Your task to perform on an android device: turn off data saver in the chrome app Image 0: 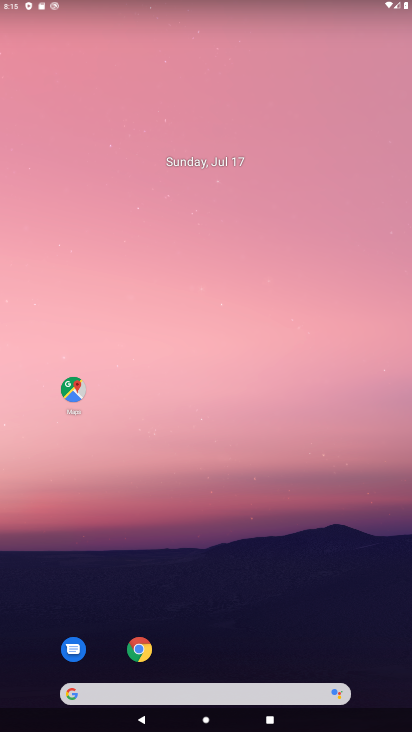
Step 0: click (141, 646)
Your task to perform on an android device: turn off data saver in the chrome app Image 1: 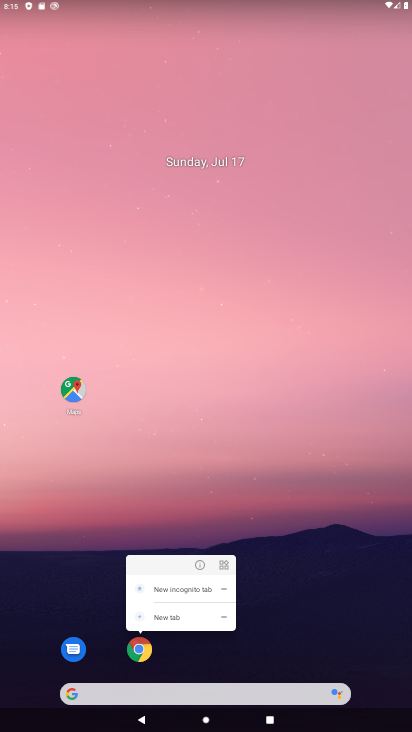
Step 1: click (137, 645)
Your task to perform on an android device: turn off data saver in the chrome app Image 2: 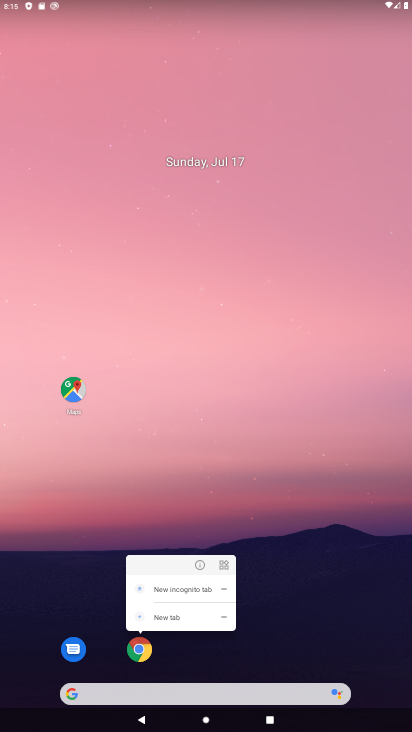
Step 2: click (142, 647)
Your task to perform on an android device: turn off data saver in the chrome app Image 3: 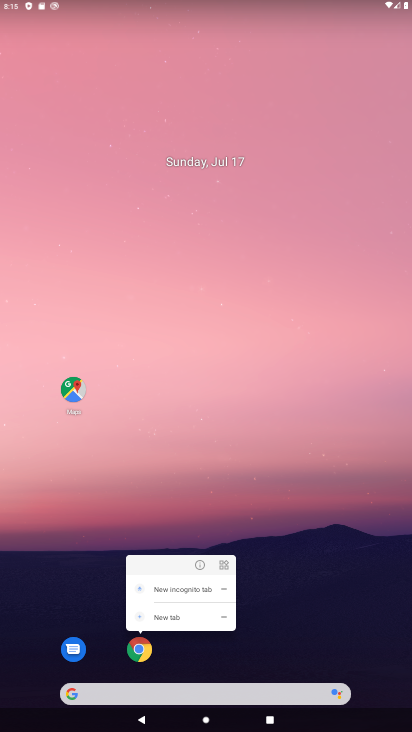
Step 3: click (143, 648)
Your task to perform on an android device: turn off data saver in the chrome app Image 4: 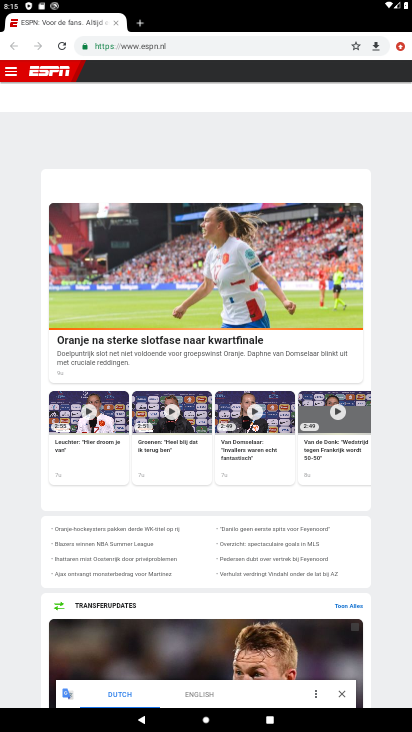
Step 4: click (400, 47)
Your task to perform on an android device: turn off data saver in the chrome app Image 5: 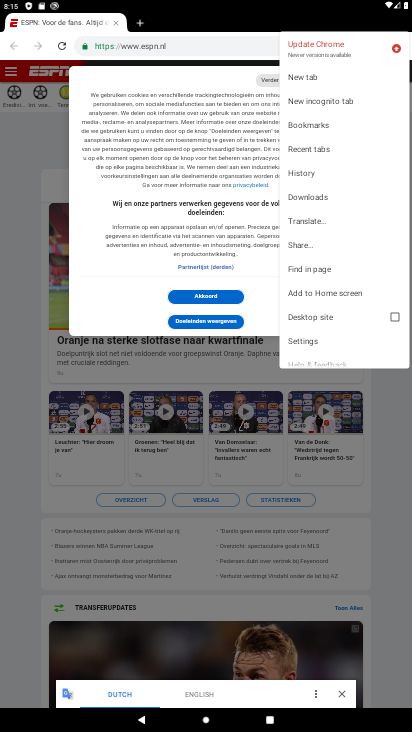
Step 5: click (304, 342)
Your task to perform on an android device: turn off data saver in the chrome app Image 6: 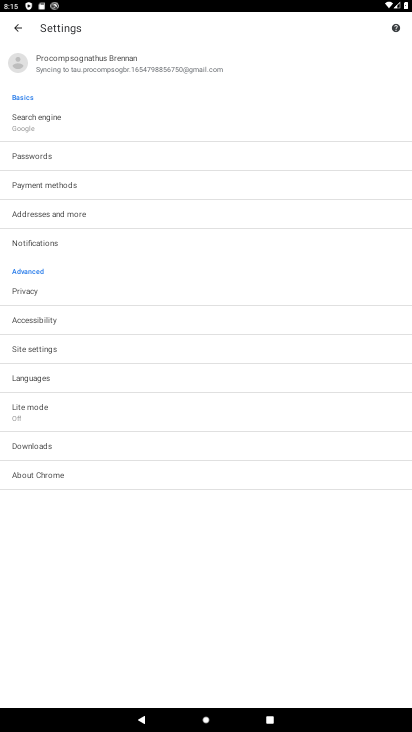
Step 6: click (49, 412)
Your task to perform on an android device: turn off data saver in the chrome app Image 7: 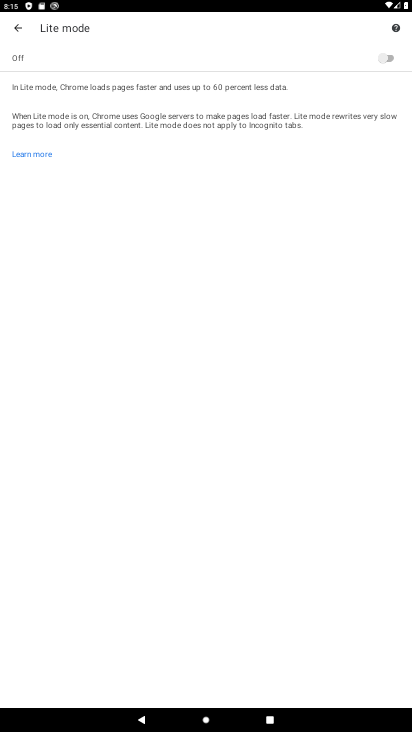
Step 7: task complete